Your task to perform on an android device: Search for Mexican restaurants on Maps Image 0: 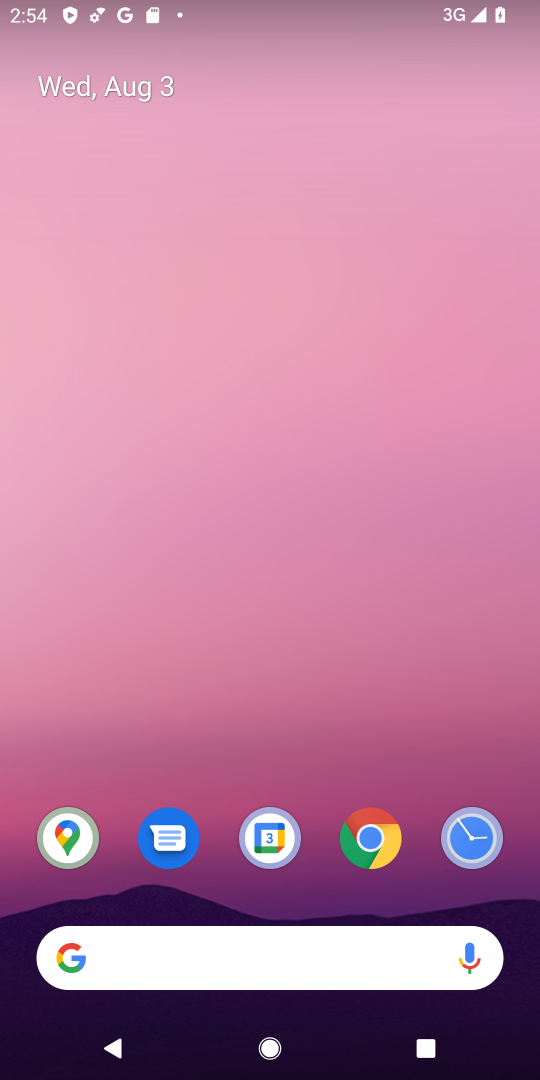
Step 0: click (78, 826)
Your task to perform on an android device: Search for Mexican restaurants on Maps Image 1: 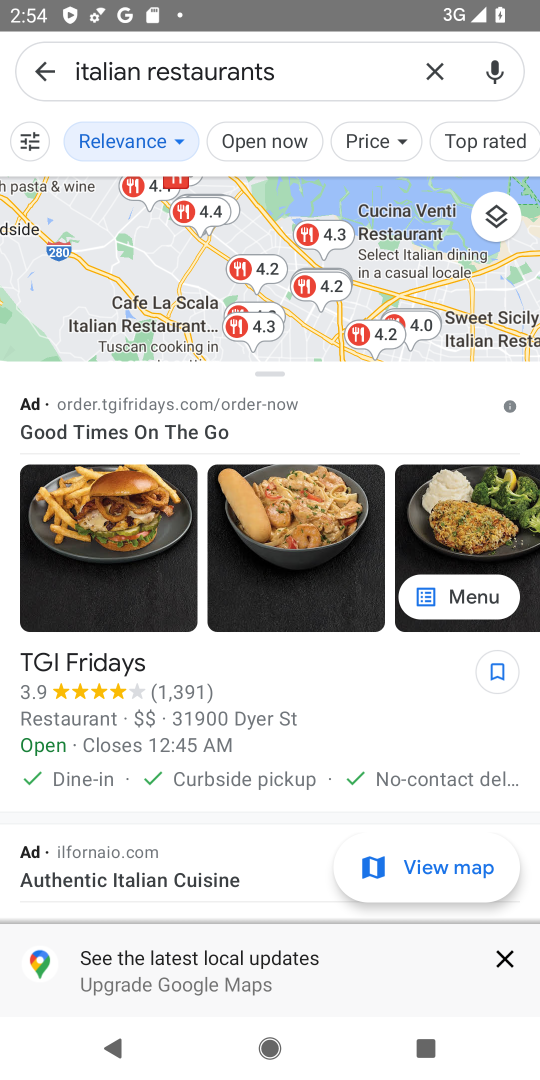
Step 1: click (438, 75)
Your task to perform on an android device: Search for Mexican restaurants on Maps Image 2: 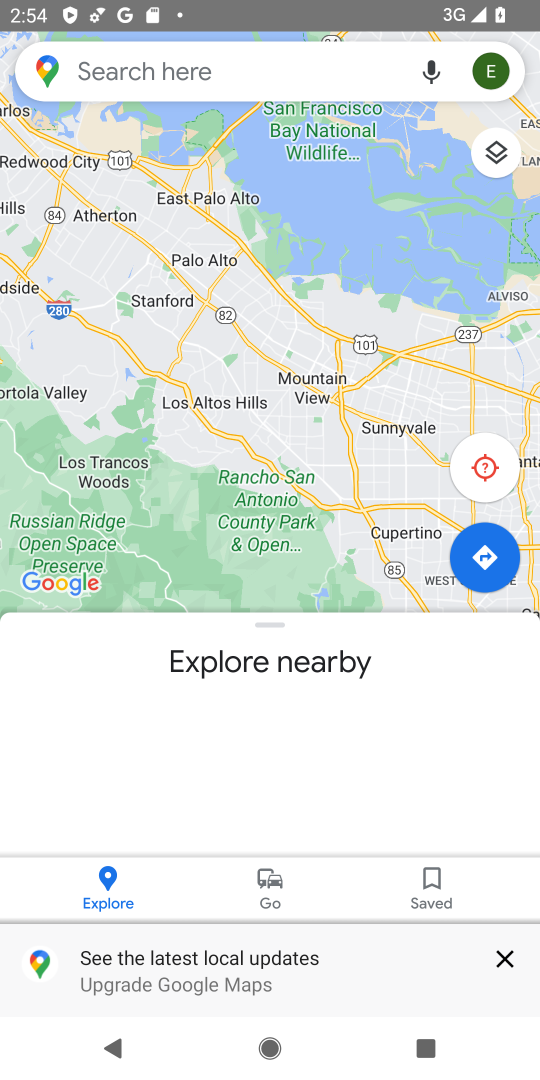
Step 2: click (347, 81)
Your task to perform on an android device: Search for Mexican restaurants on Maps Image 3: 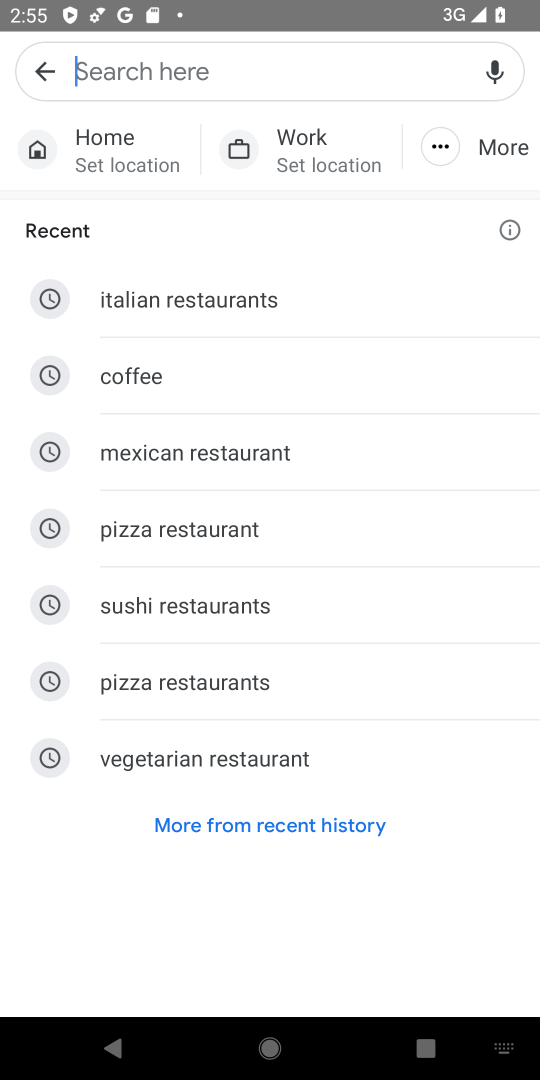
Step 3: type "mexican restaurants"
Your task to perform on an android device: Search for Mexican restaurants on Maps Image 4: 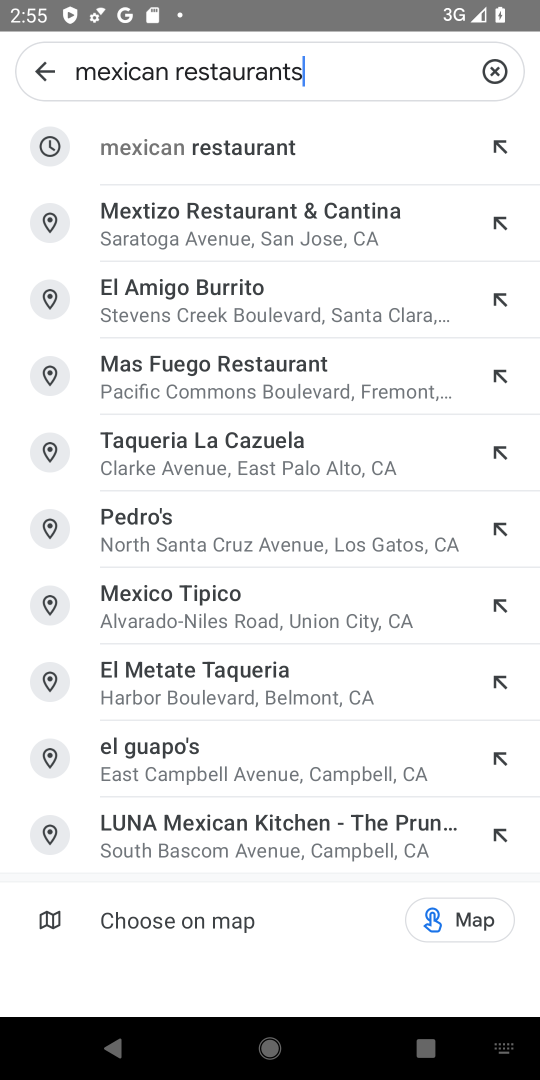
Step 4: click (377, 133)
Your task to perform on an android device: Search for Mexican restaurants on Maps Image 5: 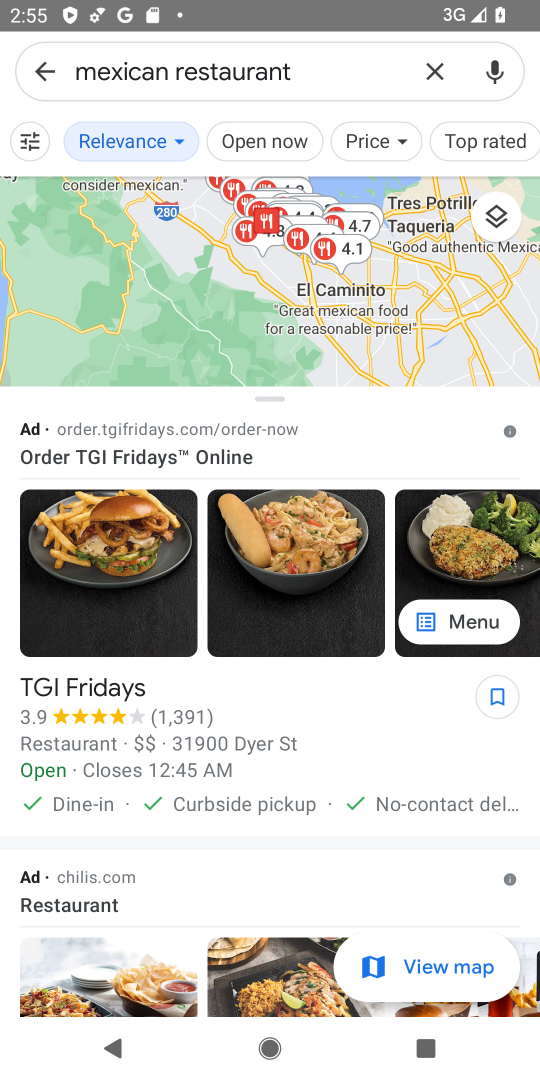
Step 5: task complete